Your task to perform on an android device: create a new album in the google photos Image 0: 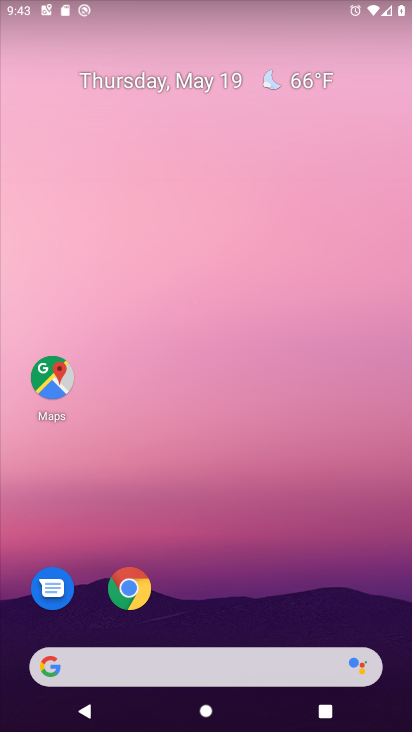
Step 0: drag from (382, 575) to (360, 171)
Your task to perform on an android device: create a new album in the google photos Image 1: 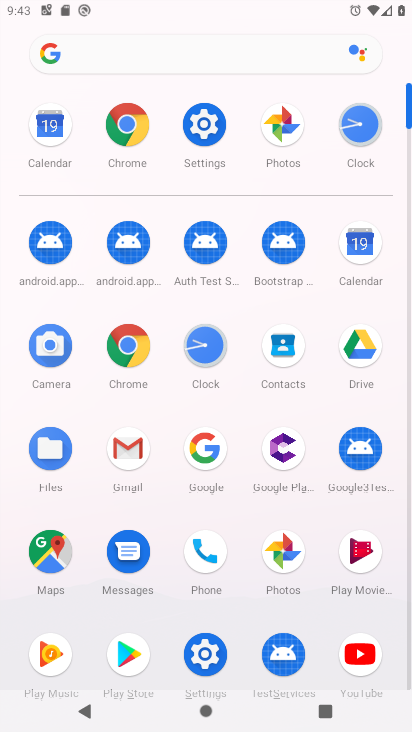
Step 1: click (290, 564)
Your task to perform on an android device: create a new album in the google photos Image 2: 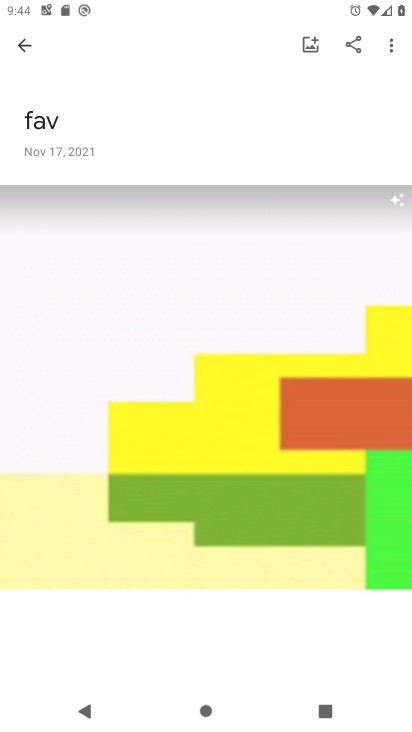
Step 2: click (22, 50)
Your task to perform on an android device: create a new album in the google photos Image 3: 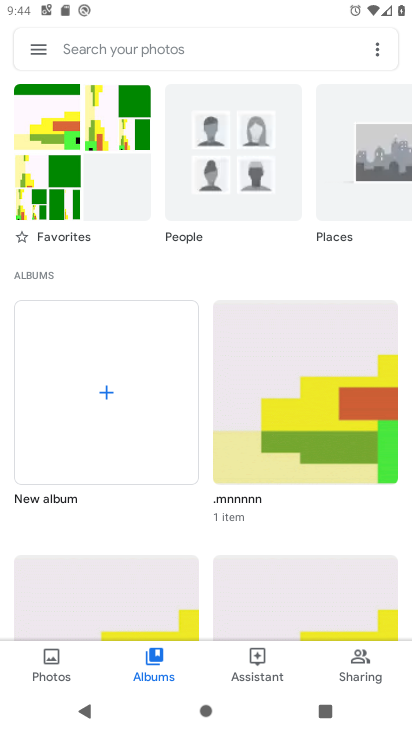
Step 3: click (113, 404)
Your task to perform on an android device: create a new album in the google photos Image 4: 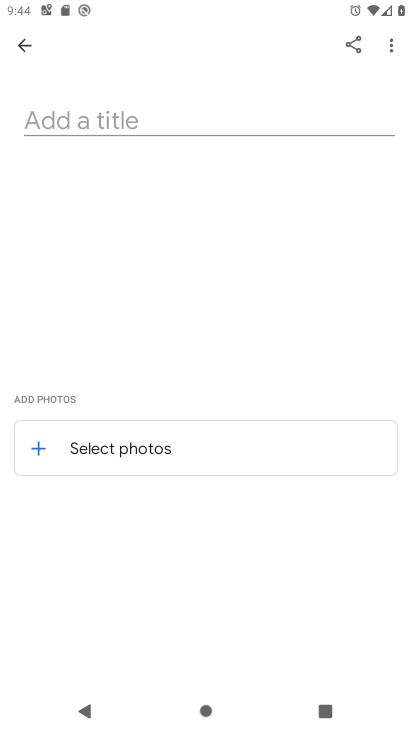
Step 4: click (209, 106)
Your task to perform on an android device: create a new album in the google photos Image 5: 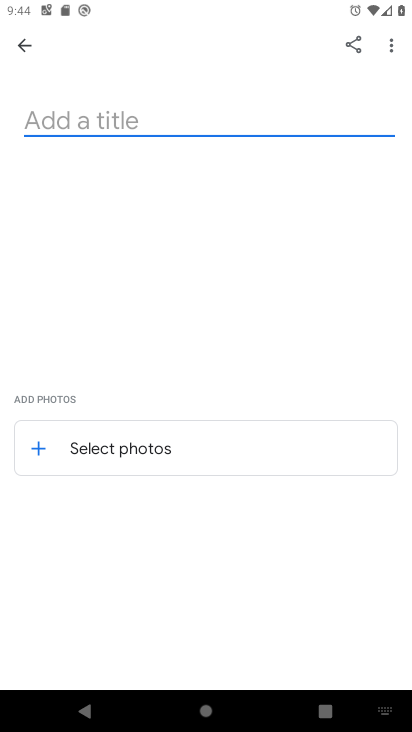
Step 5: type "maan"
Your task to perform on an android device: create a new album in the google photos Image 6: 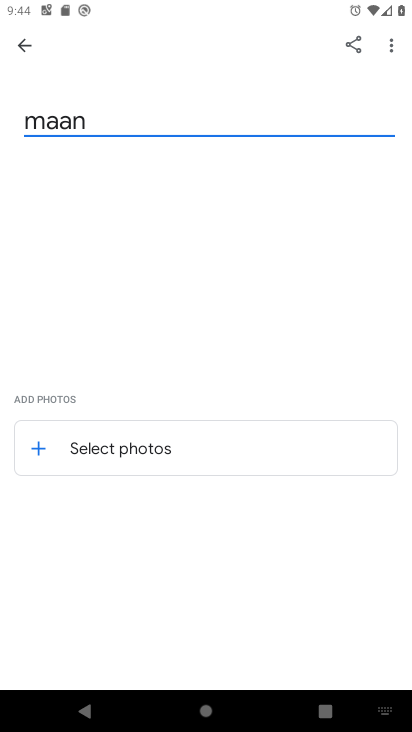
Step 6: click (107, 443)
Your task to perform on an android device: create a new album in the google photos Image 7: 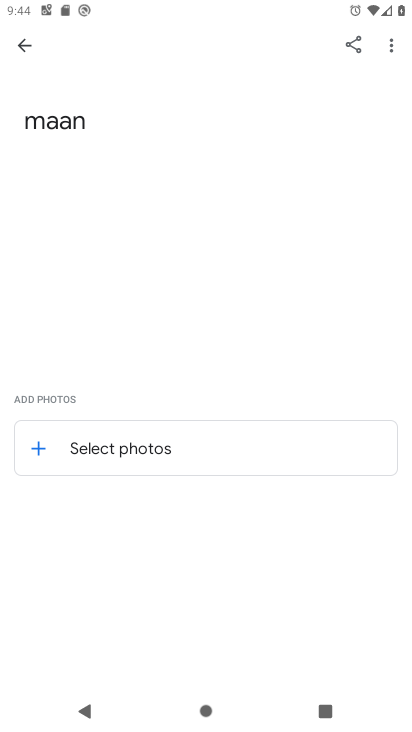
Step 7: click (34, 446)
Your task to perform on an android device: create a new album in the google photos Image 8: 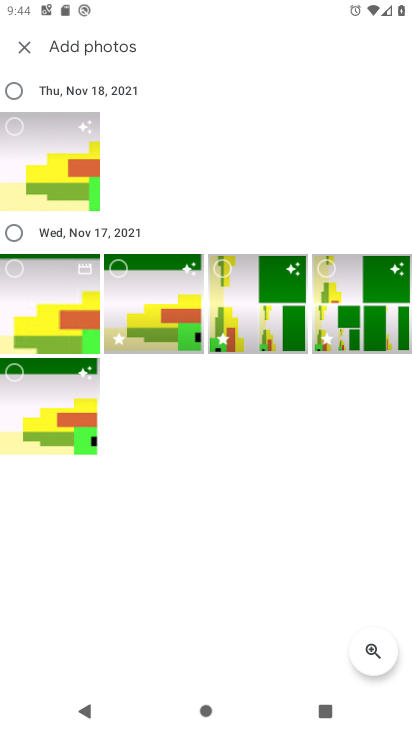
Step 8: click (73, 186)
Your task to perform on an android device: create a new album in the google photos Image 9: 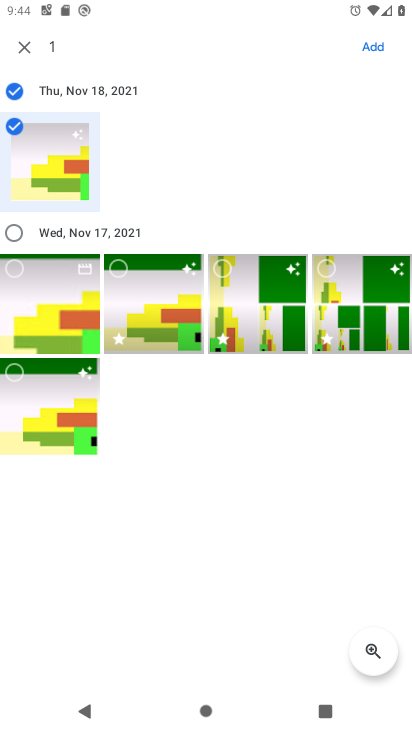
Step 9: click (370, 64)
Your task to perform on an android device: create a new album in the google photos Image 10: 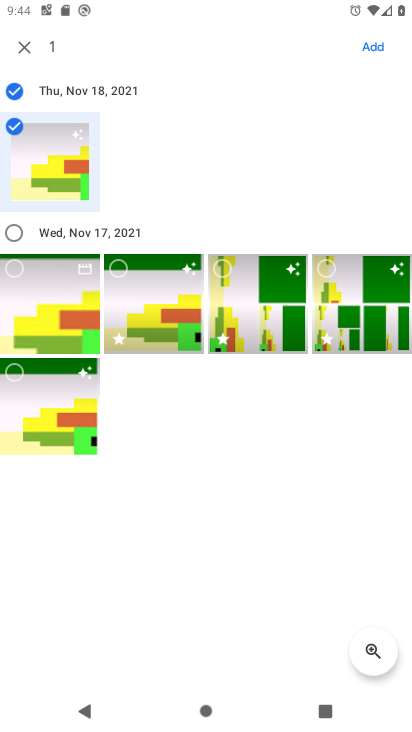
Step 10: click (381, 42)
Your task to perform on an android device: create a new album in the google photos Image 11: 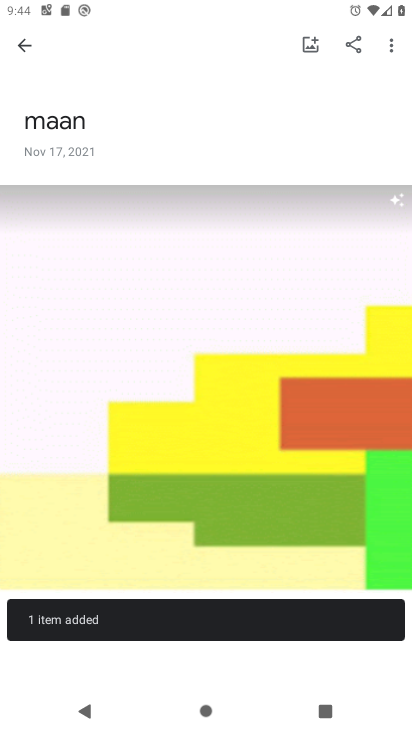
Step 11: task complete